Your task to perform on an android device: check battery use Image 0: 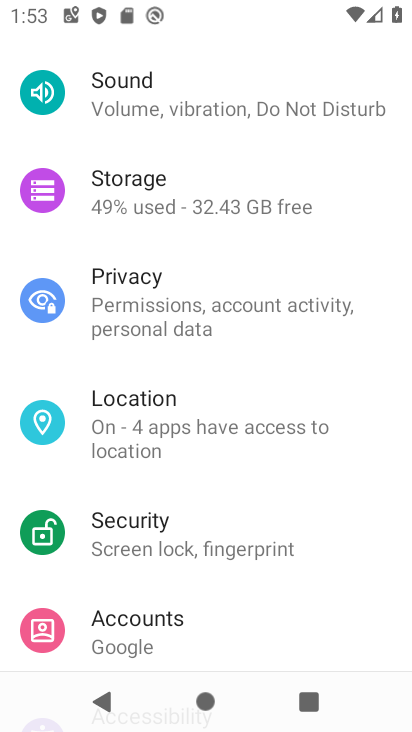
Step 0: drag from (231, 136) to (213, 547)
Your task to perform on an android device: check battery use Image 1: 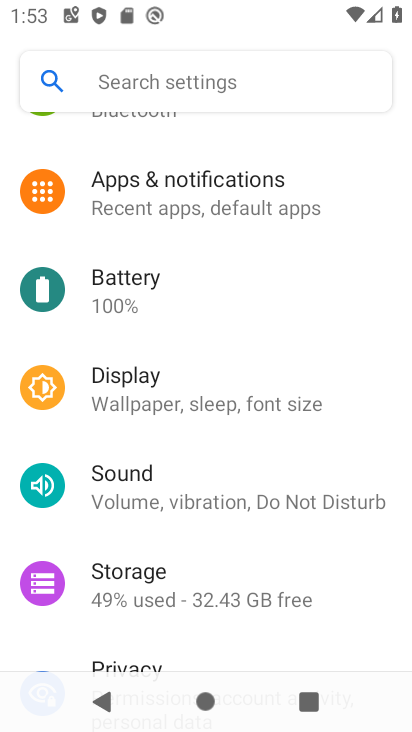
Step 1: click (122, 296)
Your task to perform on an android device: check battery use Image 2: 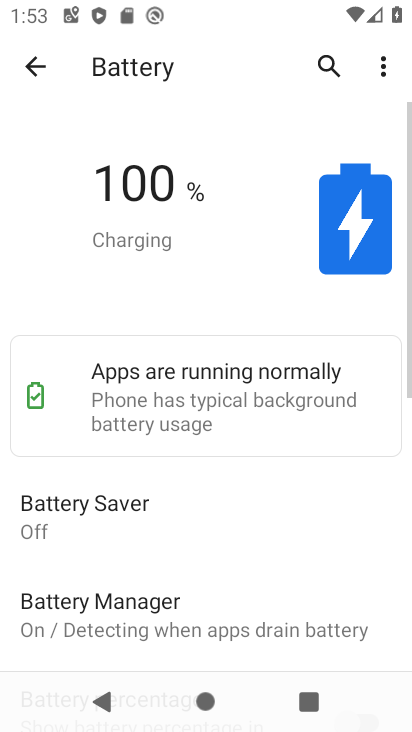
Step 2: click (376, 56)
Your task to perform on an android device: check battery use Image 3: 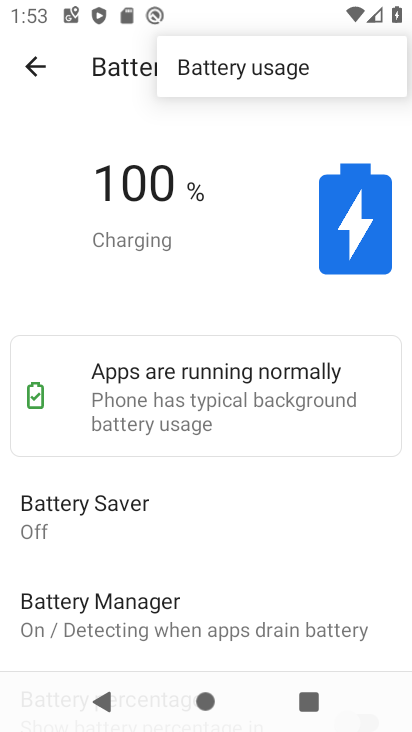
Step 3: click (285, 73)
Your task to perform on an android device: check battery use Image 4: 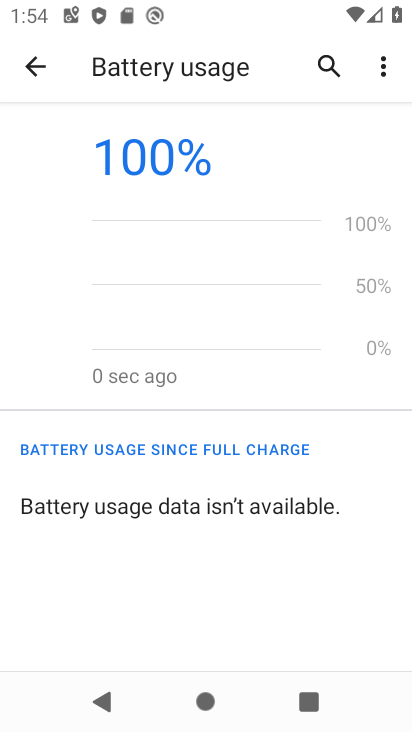
Step 4: task complete